Your task to perform on an android device: turn off location Image 0: 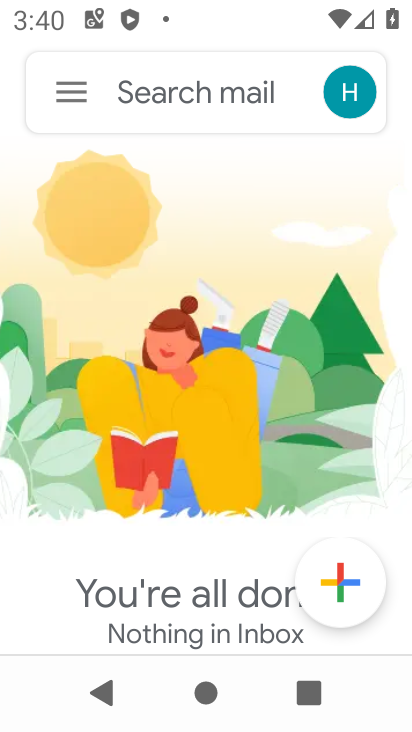
Step 0: press home button
Your task to perform on an android device: turn off location Image 1: 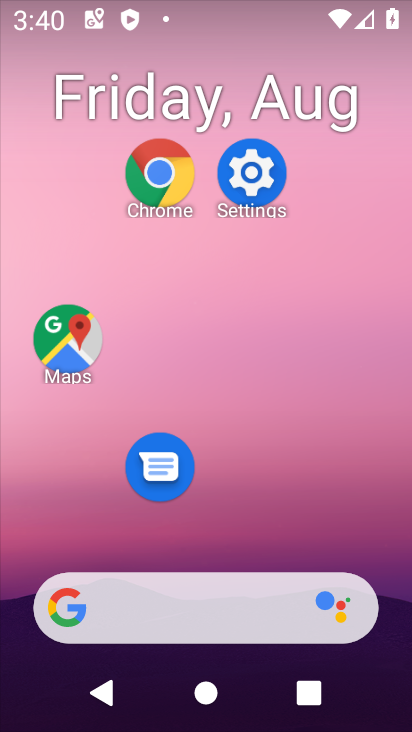
Step 1: drag from (287, 547) to (238, 2)
Your task to perform on an android device: turn off location Image 2: 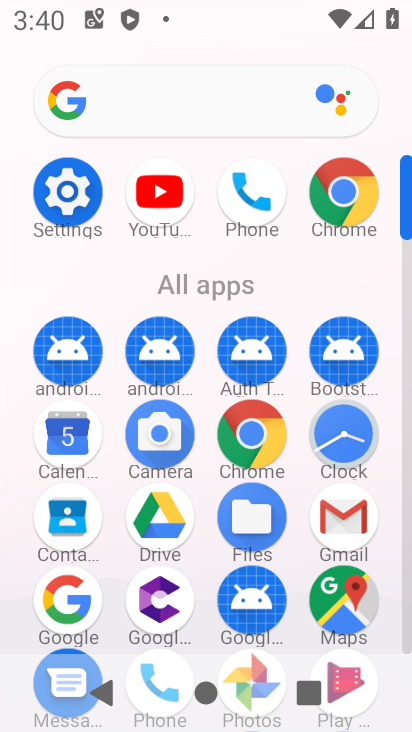
Step 2: drag from (302, 478) to (280, 122)
Your task to perform on an android device: turn off location Image 3: 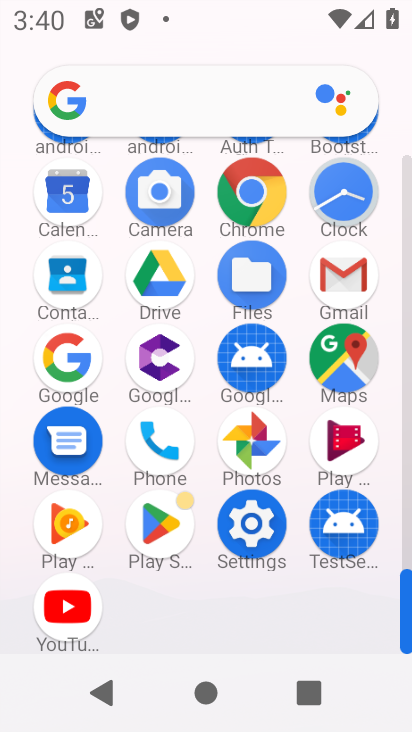
Step 3: click (344, 340)
Your task to perform on an android device: turn off location Image 4: 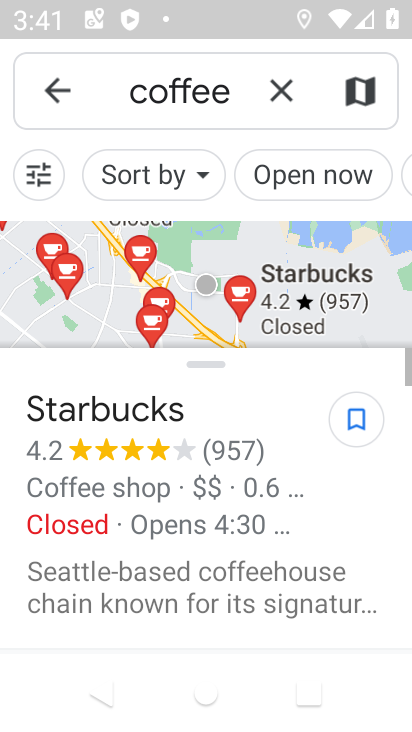
Step 4: click (283, 86)
Your task to perform on an android device: turn off location Image 5: 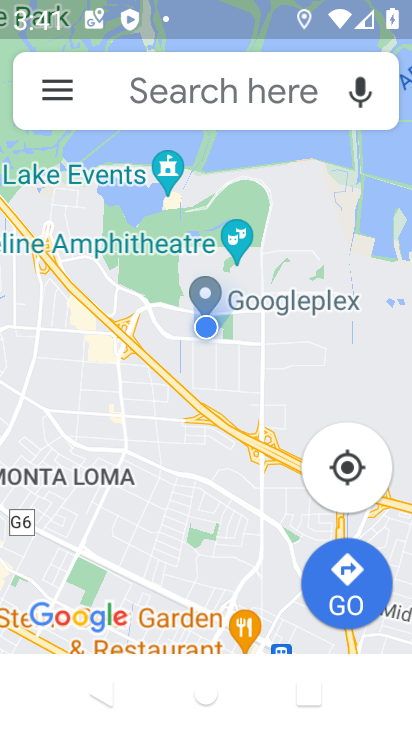
Step 5: click (61, 95)
Your task to perform on an android device: turn off location Image 6: 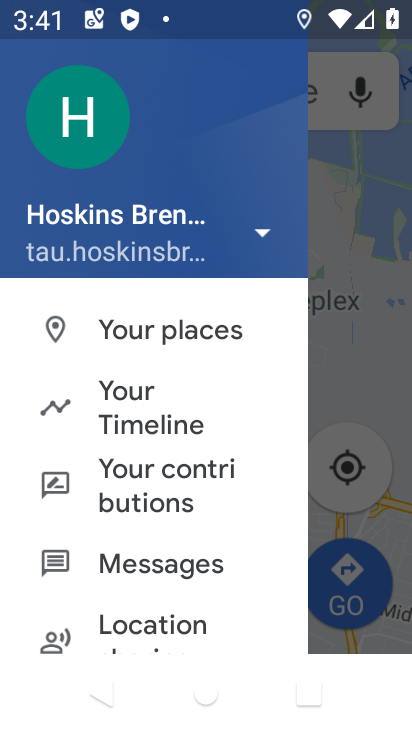
Step 6: press home button
Your task to perform on an android device: turn off location Image 7: 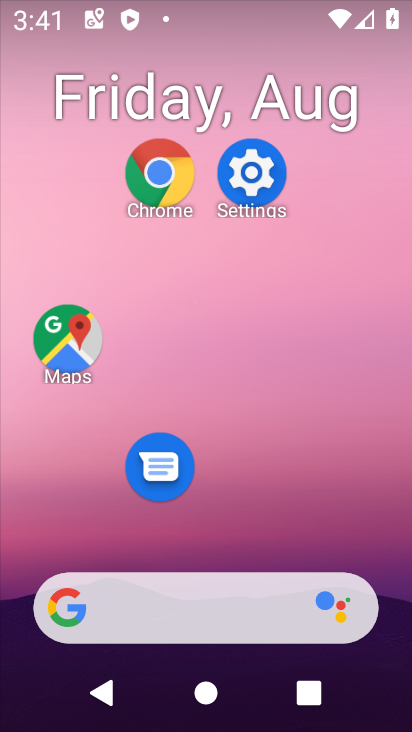
Step 7: drag from (243, 530) to (132, 96)
Your task to perform on an android device: turn off location Image 8: 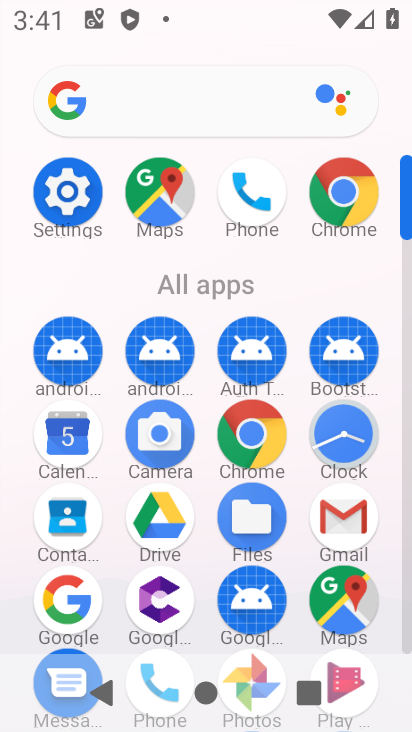
Step 8: drag from (197, 551) to (129, 148)
Your task to perform on an android device: turn off location Image 9: 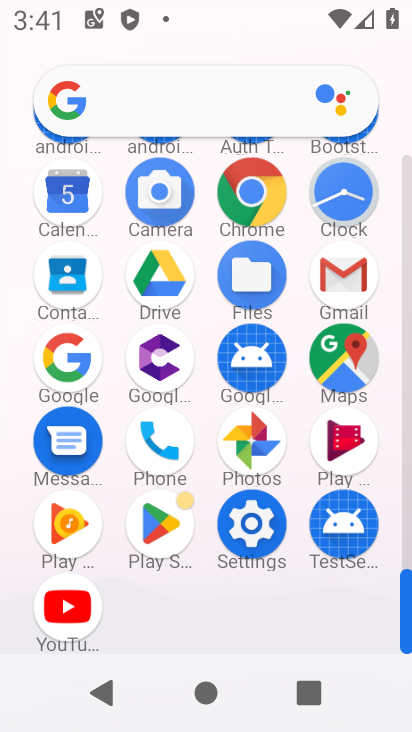
Step 9: click (254, 530)
Your task to perform on an android device: turn off location Image 10: 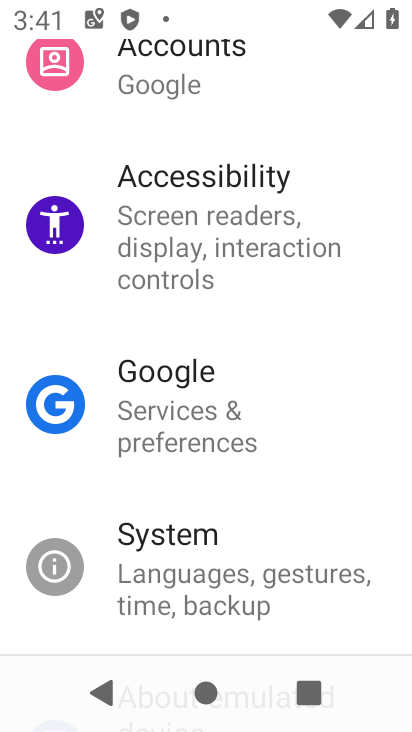
Step 10: drag from (250, 533) to (193, 187)
Your task to perform on an android device: turn off location Image 11: 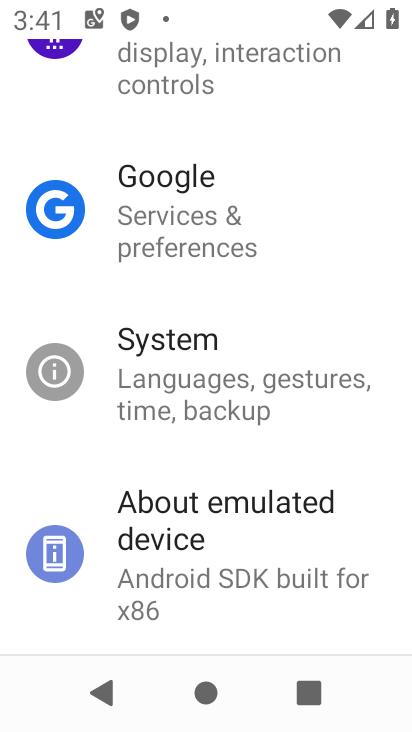
Step 11: drag from (203, 183) to (231, 603)
Your task to perform on an android device: turn off location Image 12: 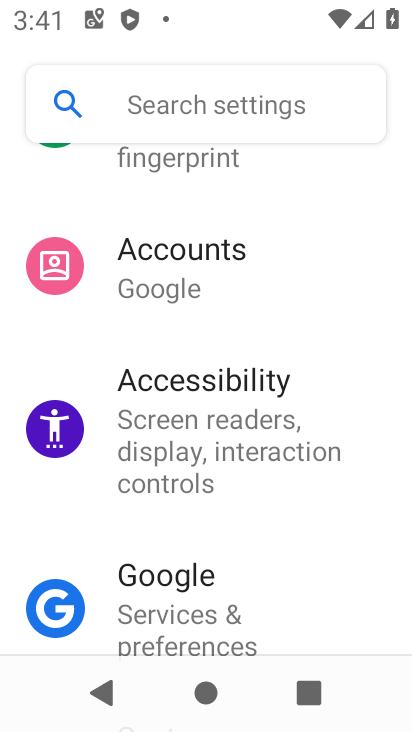
Step 12: drag from (182, 318) to (177, 612)
Your task to perform on an android device: turn off location Image 13: 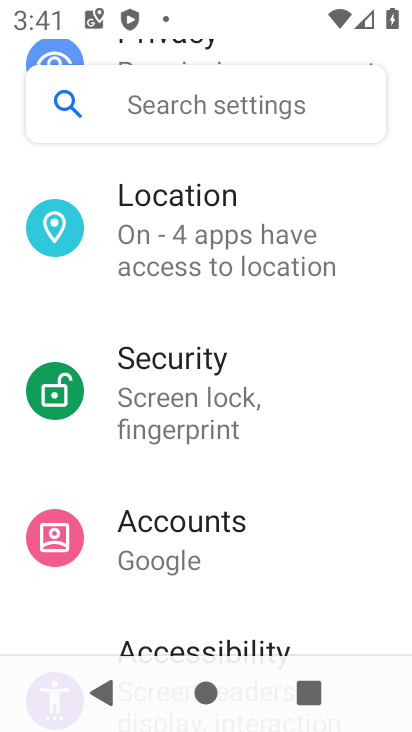
Step 13: click (131, 218)
Your task to perform on an android device: turn off location Image 14: 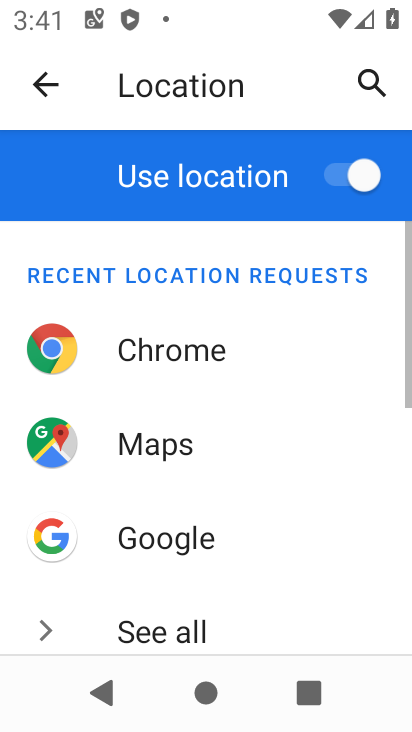
Step 14: click (185, 188)
Your task to perform on an android device: turn off location Image 15: 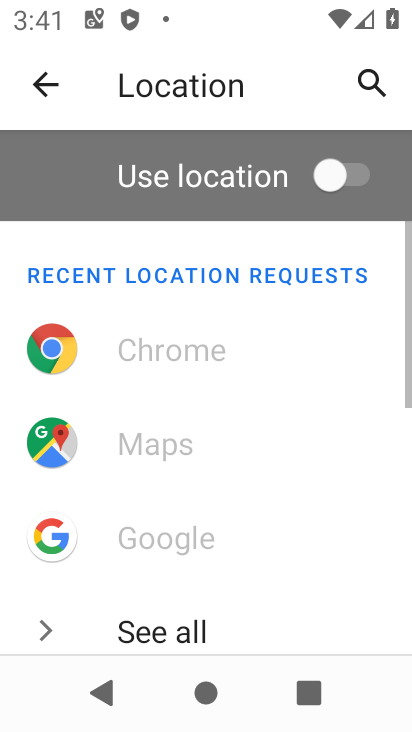
Step 15: task complete